Your task to perform on an android device: Open Yahoo.com Image 0: 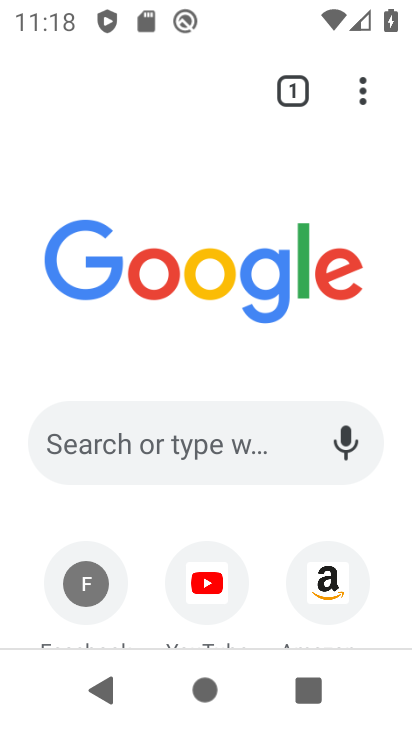
Step 0: click (183, 446)
Your task to perform on an android device: Open Yahoo.com Image 1: 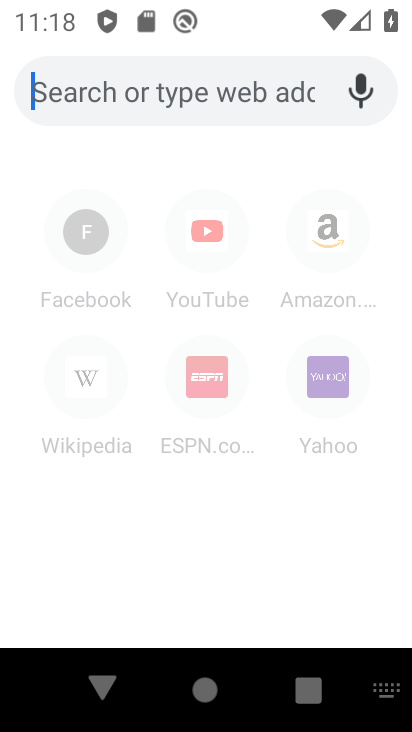
Step 1: click (316, 390)
Your task to perform on an android device: Open Yahoo.com Image 2: 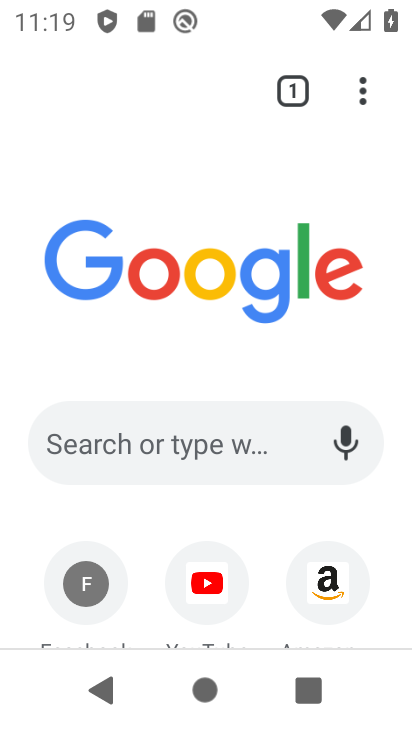
Step 2: drag from (255, 499) to (220, 82)
Your task to perform on an android device: Open Yahoo.com Image 3: 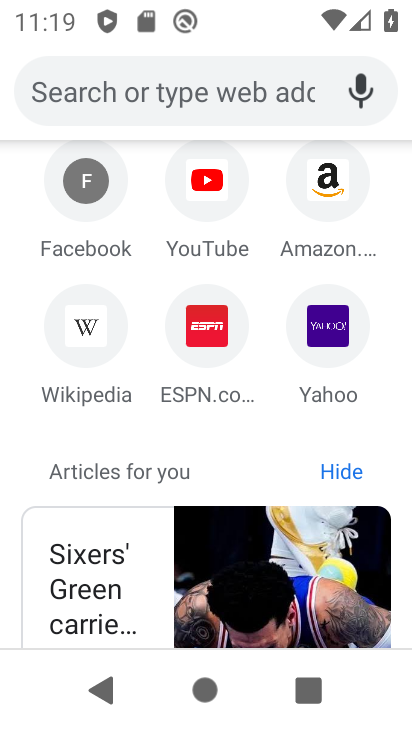
Step 3: click (313, 349)
Your task to perform on an android device: Open Yahoo.com Image 4: 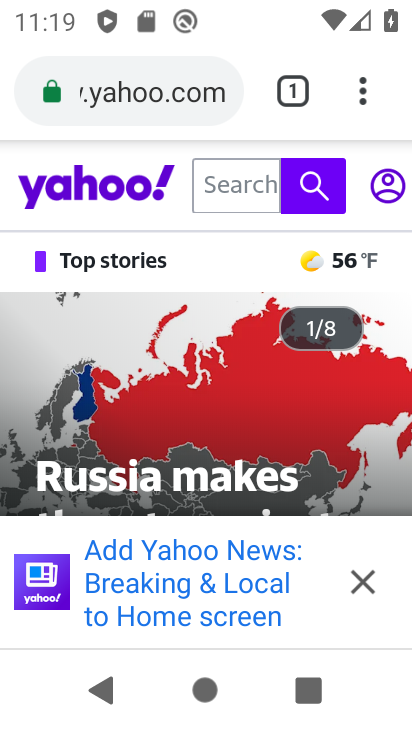
Step 4: task complete